Your task to perform on an android device: When is my next meeting? Image 0: 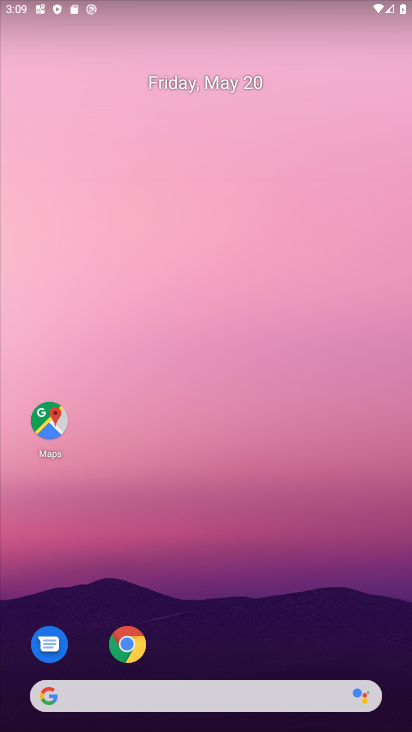
Step 0: drag from (242, 638) to (31, 5)
Your task to perform on an android device: When is my next meeting? Image 1: 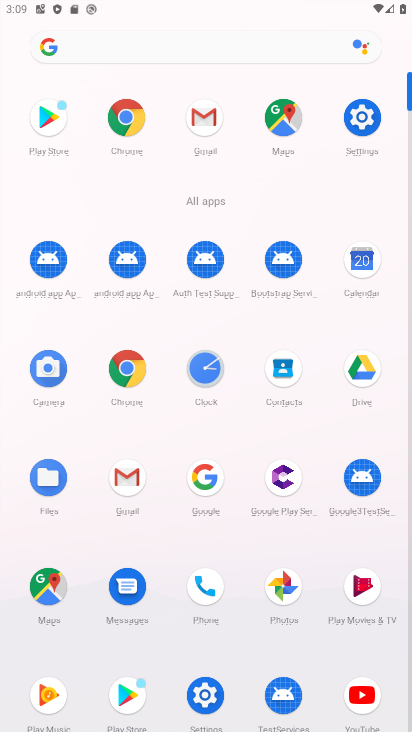
Step 1: click (356, 260)
Your task to perform on an android device: When is my next meeting? Image 2: 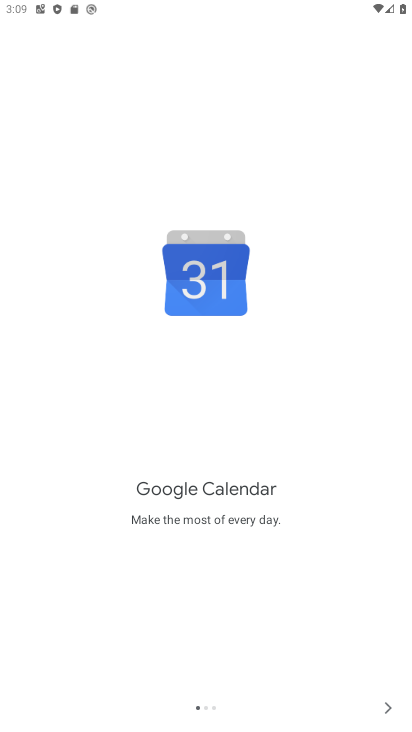
Step 2: click (379, 704)
Your task to perform on an android device: When is my next meeting? Image 3: 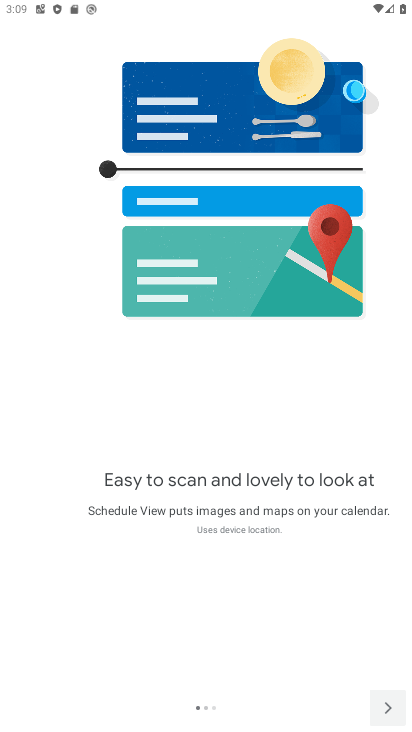
Step 3: click (379, 704)
Your task to perform on an android device: When is my next meeting? Image 4: 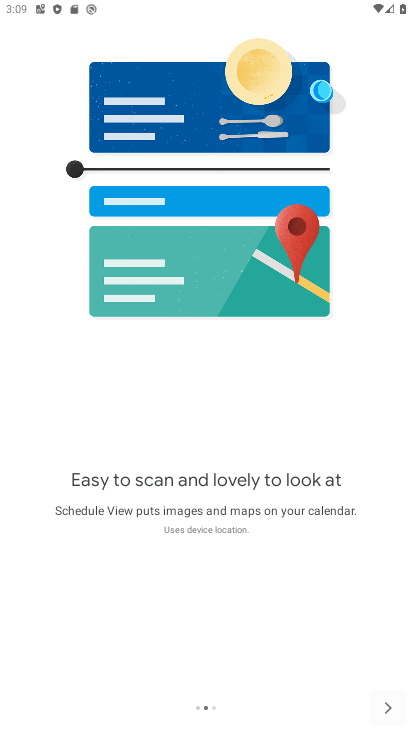
Step 4: click (379, 704)
Your task to perform on an android device: When is my next meeting? Image 5: 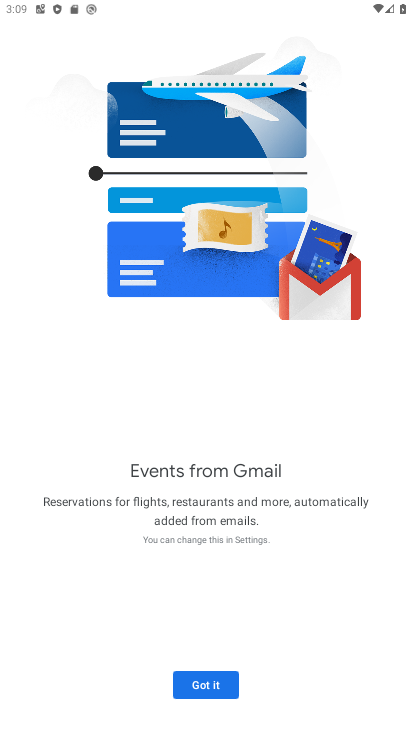
Step 5: click (211, 676)
Your task to perform on an android device: When is my next meeting? Image 6: 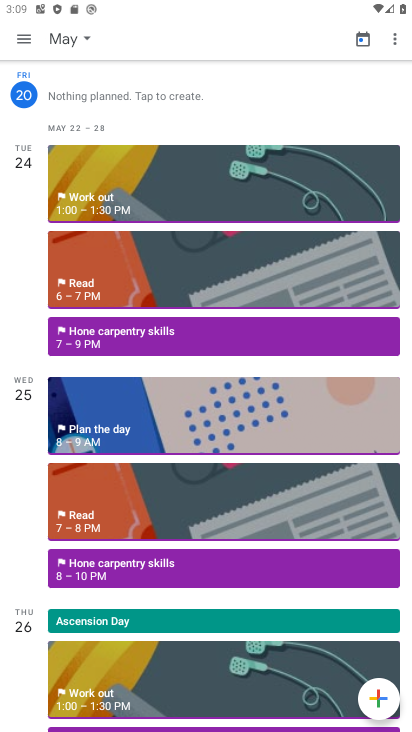
Step 6: task complete